Your task to perform on an android device: open app "Upside-Cash back on gas & food" (install if not already installed) and enter user name: "transatlantic@gmail.com" and password: "experiences" Image 0: 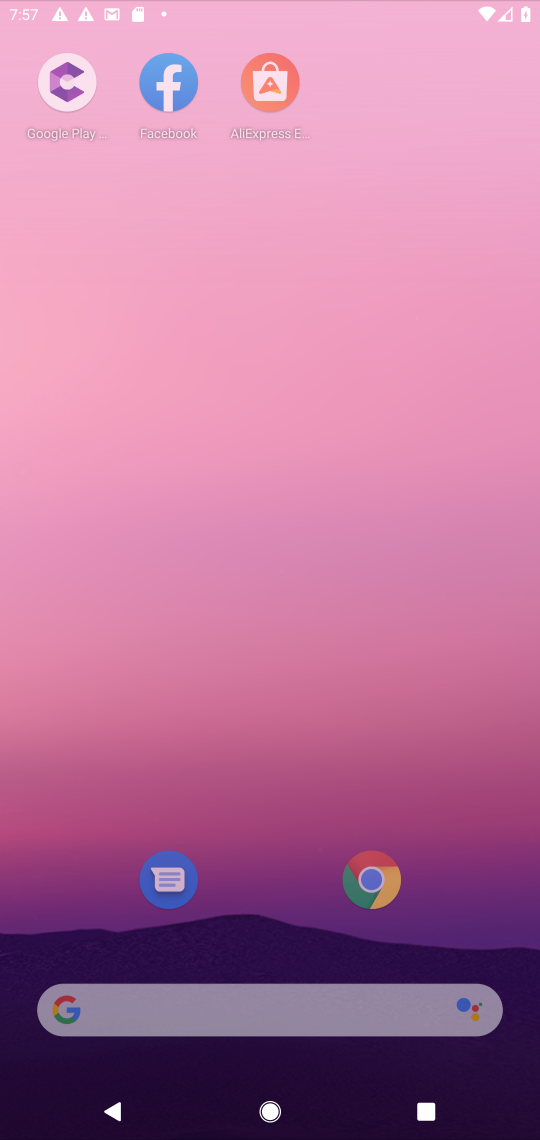
Step 0: click (441, 69)
Your task to perform on an android device: open app "Upside-Cash back on gas & food" (install if not already installed) and enter user name: "transatlantic@gmail.com" and password: "experiences" Image 1: 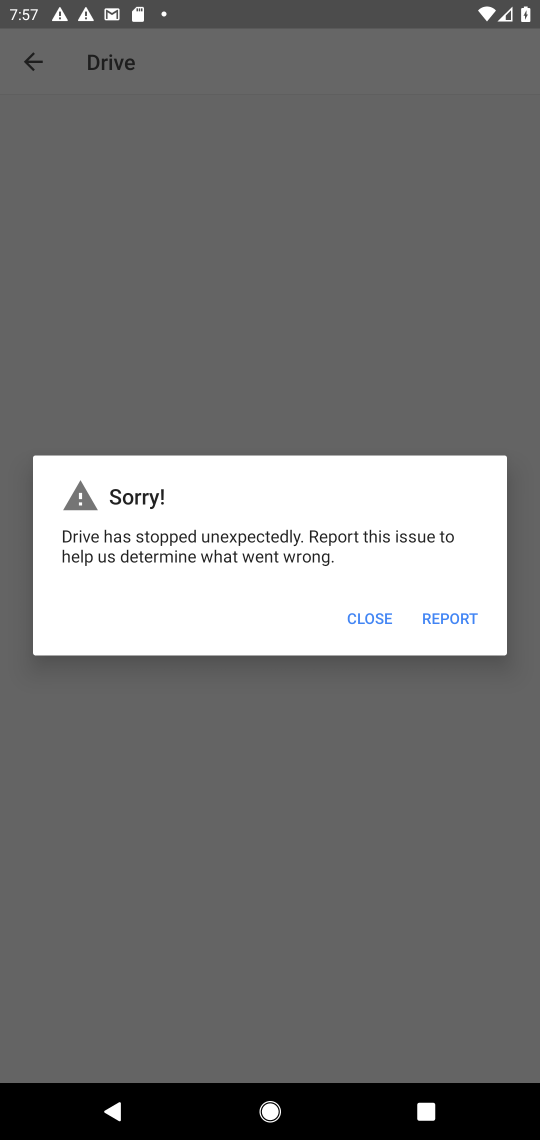
Step 1: press home button
Your task to perform on an android device: open app "Upside-Cash back on gas & food" (install if not already installed) and enter user name: "transatlantic@gmail.com" and password: "experiences" Image 2: 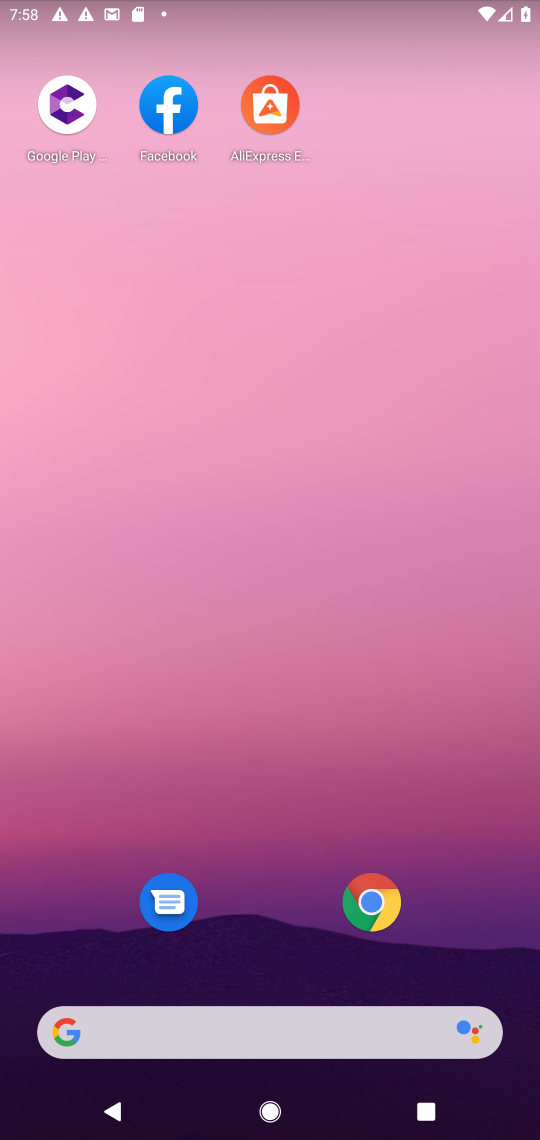
Step 2: drag from (213, 1041) to (145, 162)
Your task to perform on an android device: open app "Upside-Cash back on gas & food" (install if not already installed) and enter user name: "transatlantic@gmail.com" and password: "experiences" Image 3: 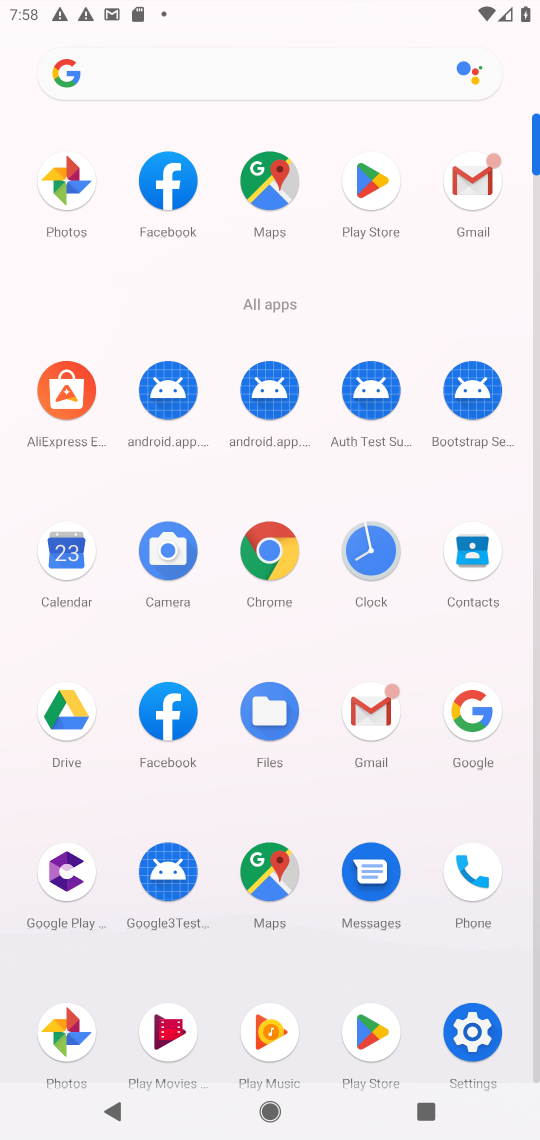
Step 3: click (389, 176)
Your task to perform on an android device: open app "Upside-Cash back on gas & food" (install if not already installed) and enter user name: "transatlantic@gmail.com" and password: "experiences" Image 4: 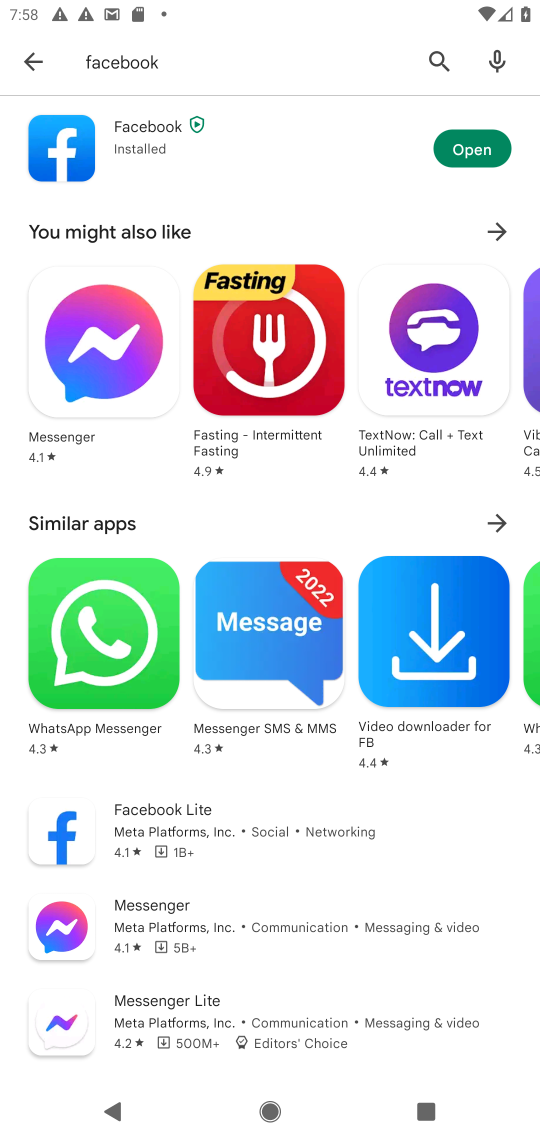
Step 4: click (445, 57)
Your task to perform on an android device: open app "Upside-Cash back on gas & food" (install if not already installed) and enter user name: "transatlantic@gmail.com" and password: "experiences" Image 5: 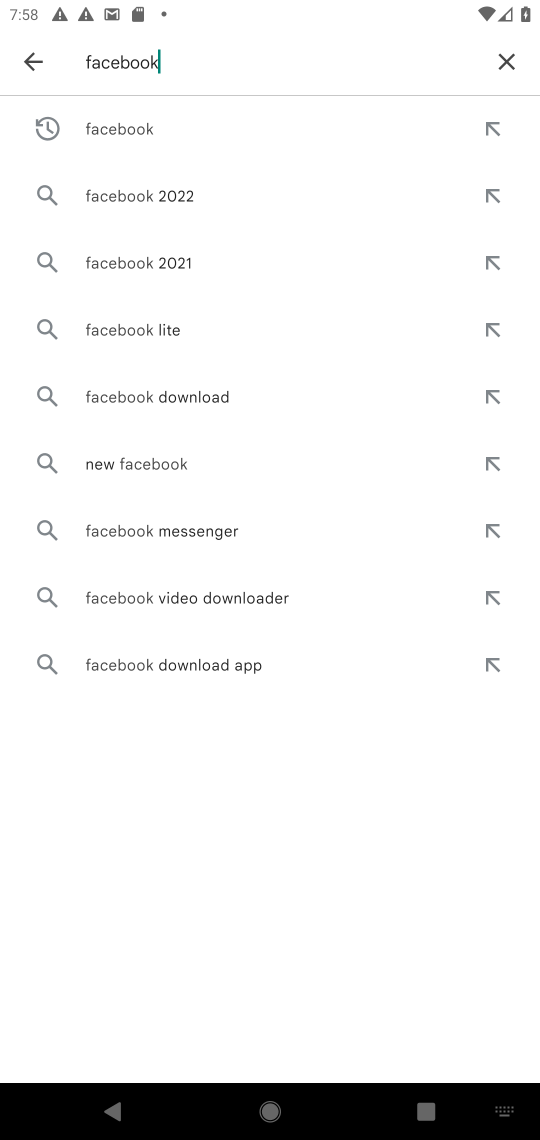
Step 5: click (510, 65)
Your task to perform on an android device: open app "Upside-Cash back on gas & food" (install if not already installed) and enter user name: "transatlantic@gmail.com" and password: "experiences" Image 6: 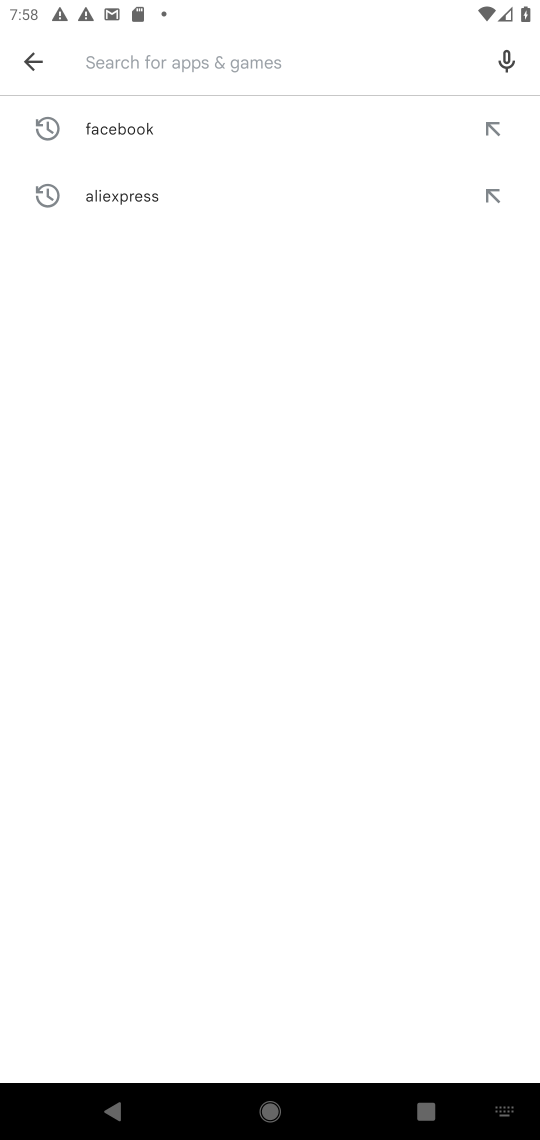
Step 6: drag from (100, 1118) to (415, 932)
Your task to perform on an android device: open app "Upside-Cash back on gas & food" (install if not already installed) and enter user name: "transatlantic@gmail.com" and password: "experiences" Image 7: 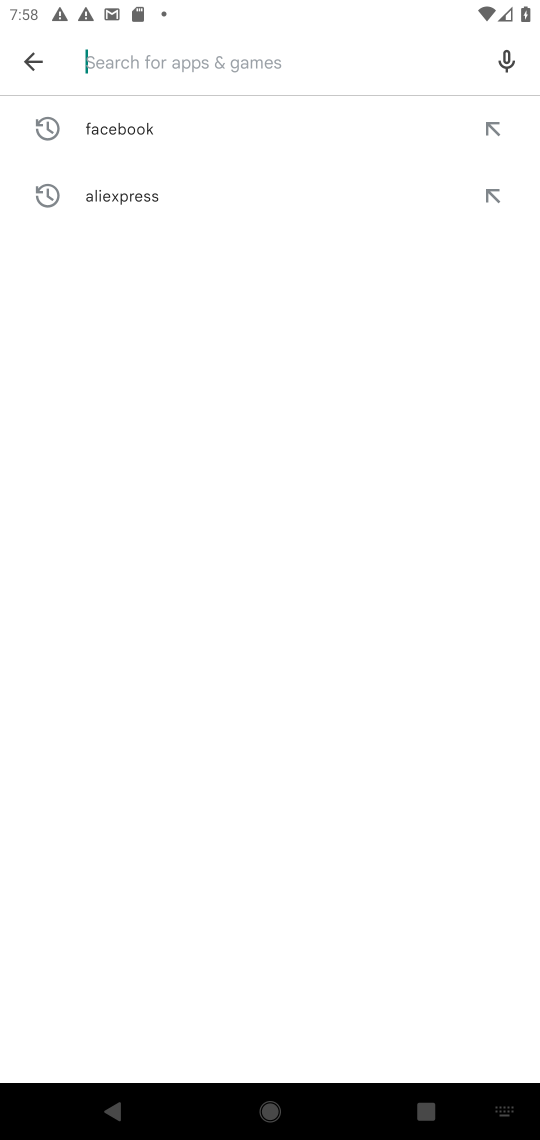
Step 7: type "Upside-Cash back on gas & food"
Your task to perform on an android device: open app "Upside-Cash back on gas & food" (install if not already installed) and enter user name: "transatlantic@gmail.com" and password: "experiences" Image 8: 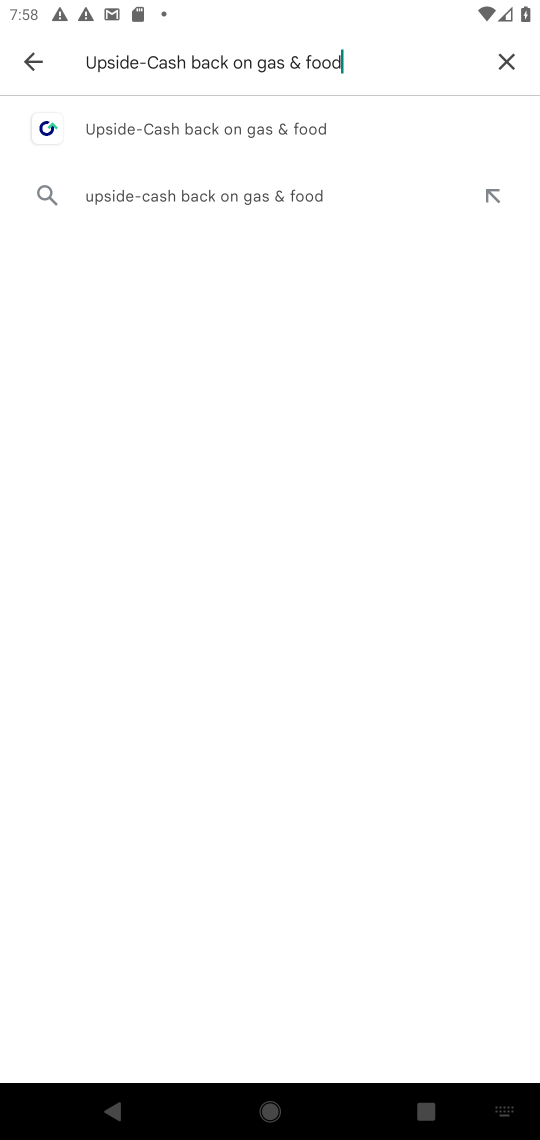
Step 8: click (140, 139)
Your task to perform on an android device: open app "Upside-Cash back on gas & food" (install if not already installed) and enter user name: "transatlantic@gmail.com" and password: "experiences" Image 9: 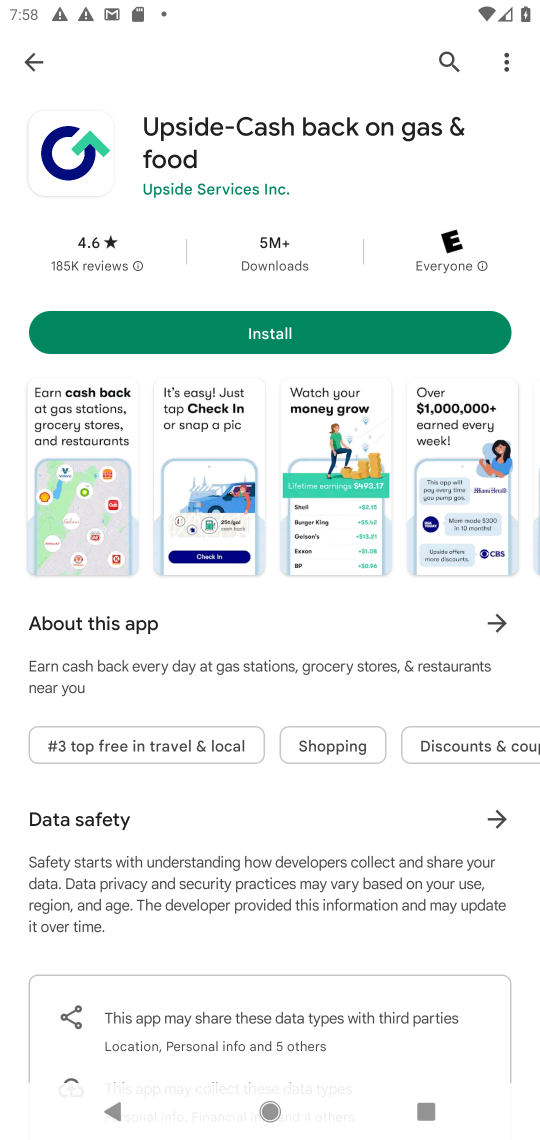
Step 9: click (240, 331)
Your task to perform on an android device: open app "Upside-Cash back on gas & food" (install if not already installed) and enter user name: "transatlantic@gmail.com" and password: "experiences" Image 10: 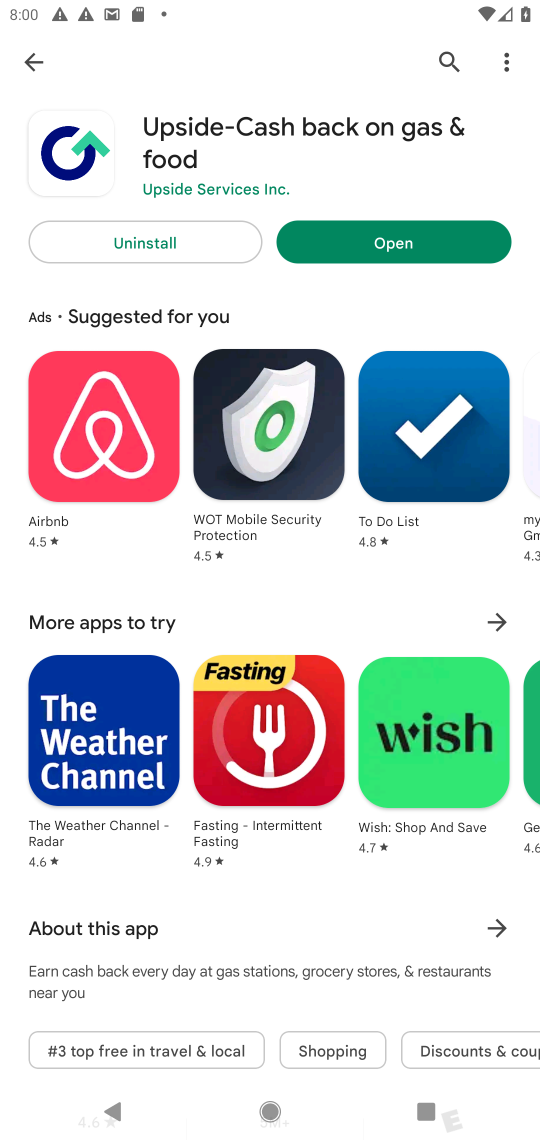
Step 10: click (432, 255)
Your task to perform on an android device: open app "Upside-Cash back on gas & food" (install if not already installed) and enter user name: "transatlantic@gmail.com" and password: "experiences" Image 11: 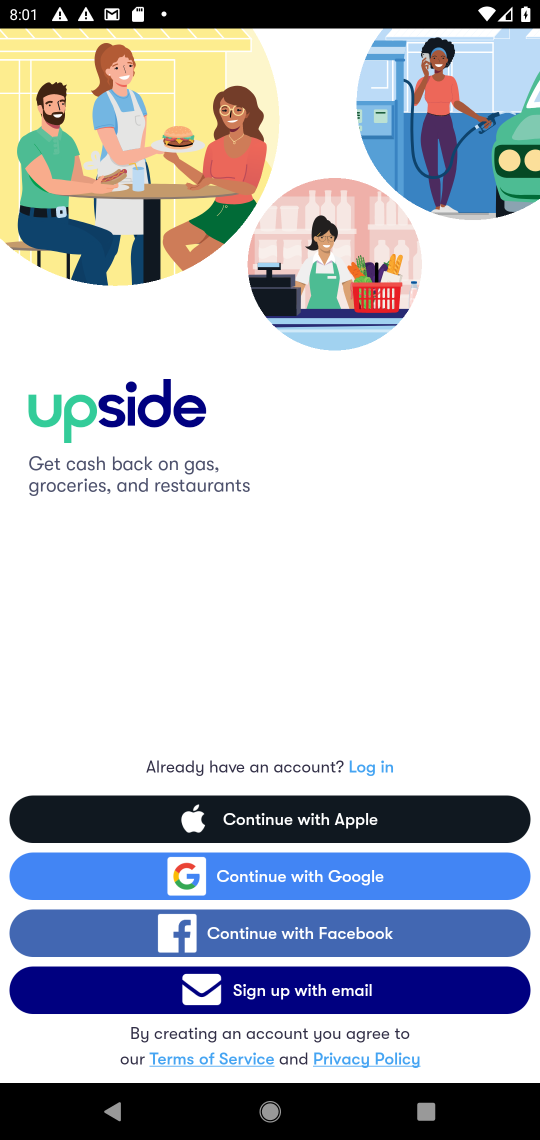
Step 11: click (359, 1000)
Your task to perform on an android device: open app "Upside-Cash back on gas & food" (install if not already installed) and enter user name: "transatlantic@gmail.com" and password: "experiences" Image 12: 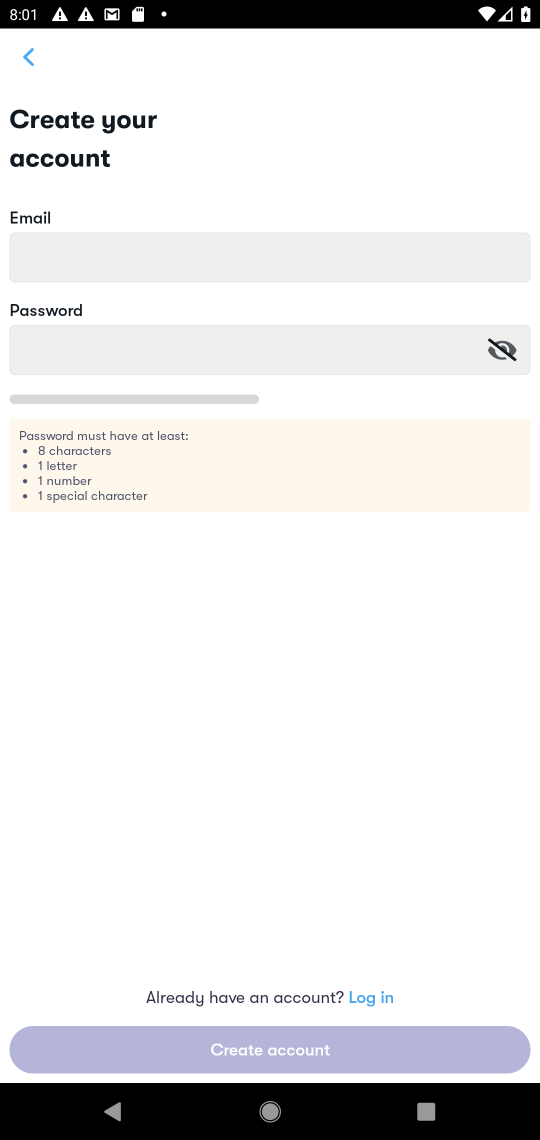
Step 12: click (172, 264)
Your task to perform on an android device: open app "Upside-Cash back on gas & food" (install if not already installed) and enter user name: "transatlantic@gmail.com" and password: "experiences" Image 13: 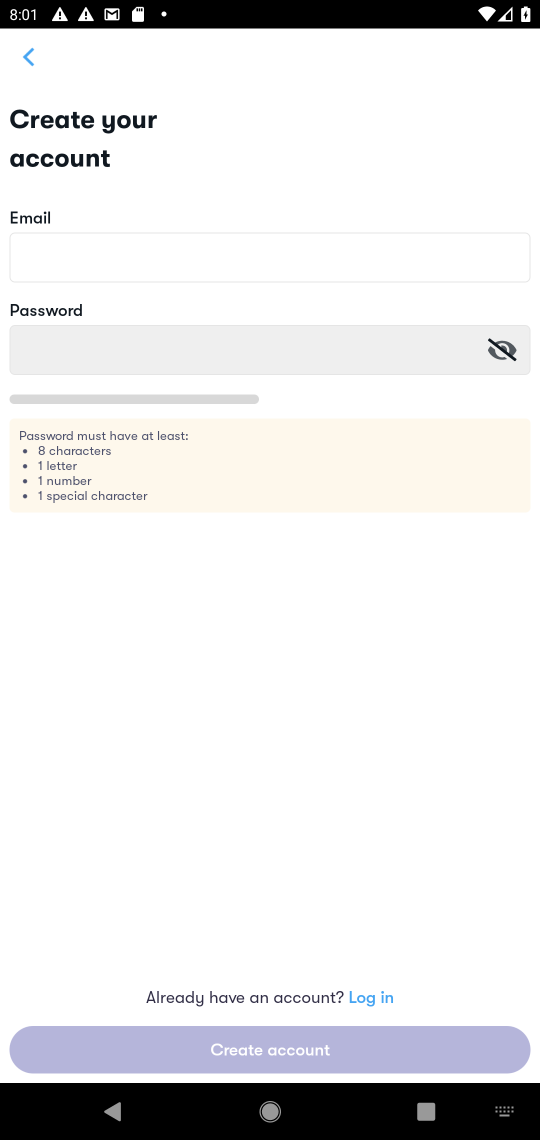
Step 13: type "transatlantic@gmail.com"
Your task to perform on an android device: open app "Upside-Cash back on gas & food" (install if not already installed) and enter user name: "transatlantic@gmail.com" and password: "experiences" Image 14: 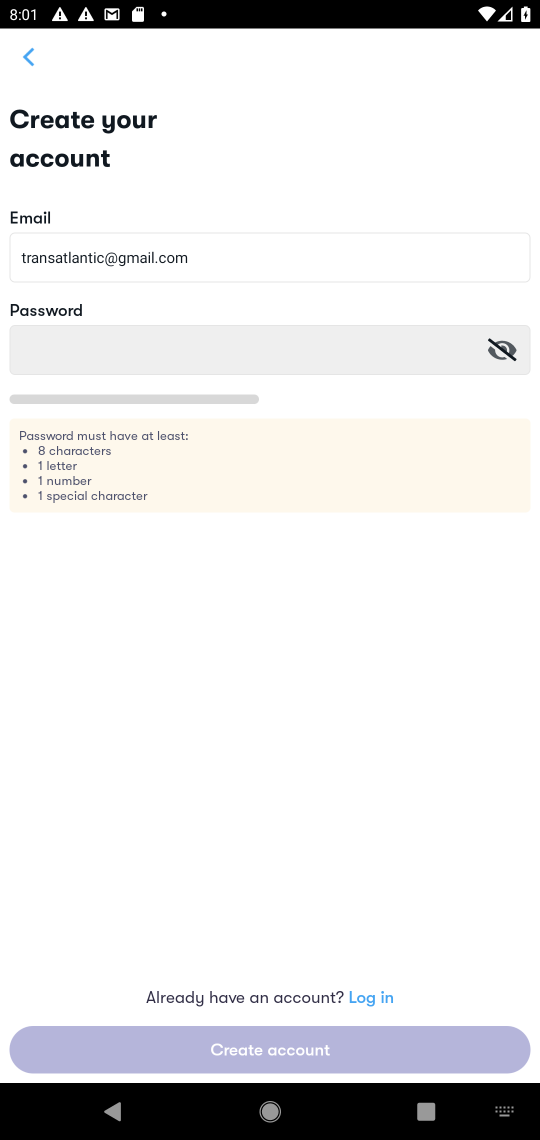
Step 14: click (159, 358)
Your task to perform on an android device: open app "Upside-Cash back on gas & food" (install if not already installed) and enter user name: "transatlantic@gmail.com" and password: "experiences" Image 15: 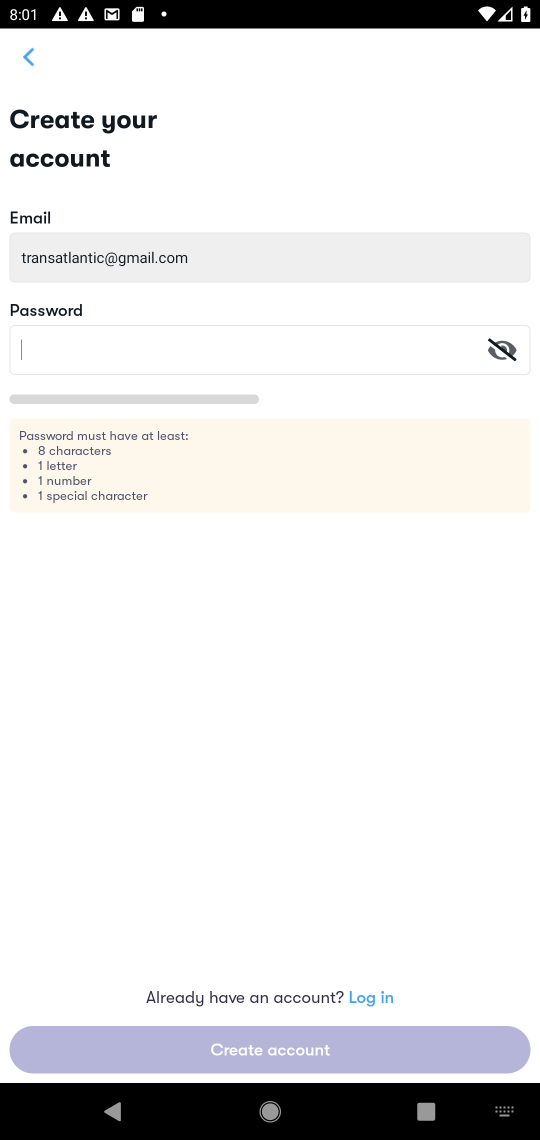
Step 15: type "experiences"
Your task to perform on an android device: open app "Upside-Cash back on gas & food" (install if not already installed) and enter user name: "transatlantic@gmail.com" and password: "experiences" Image 16: 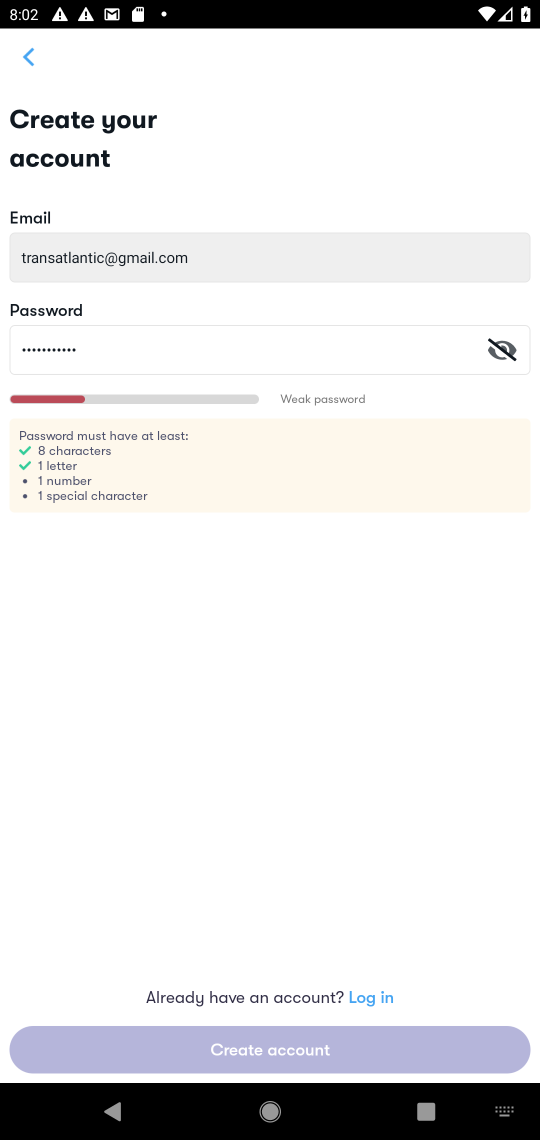
Step 16: task complete